Your task to perform on an android device: install app "DoorDash - Dasher" Image 0: 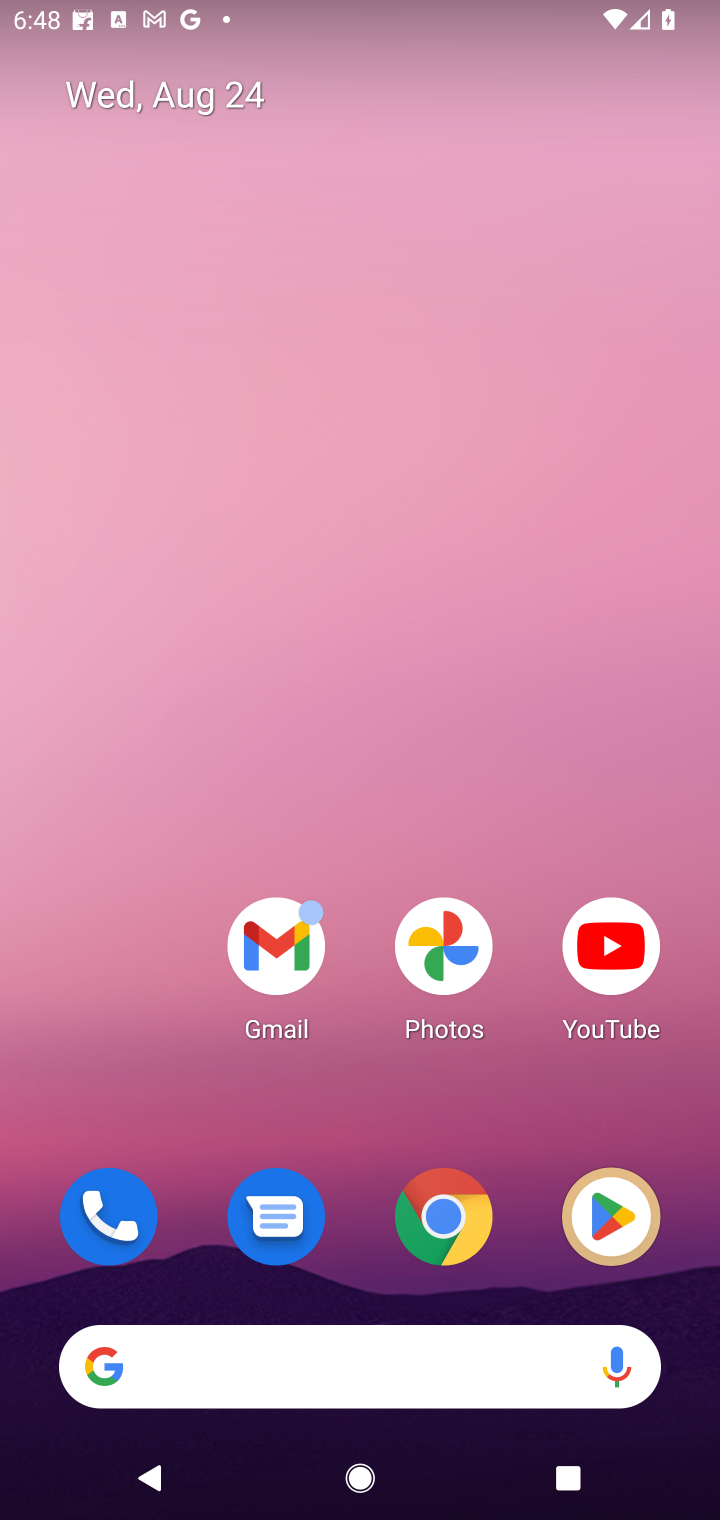
Step 0: click (584, 1202)
Your task to perform on an android device: install app "DoorDash - Dasher" Image 1: 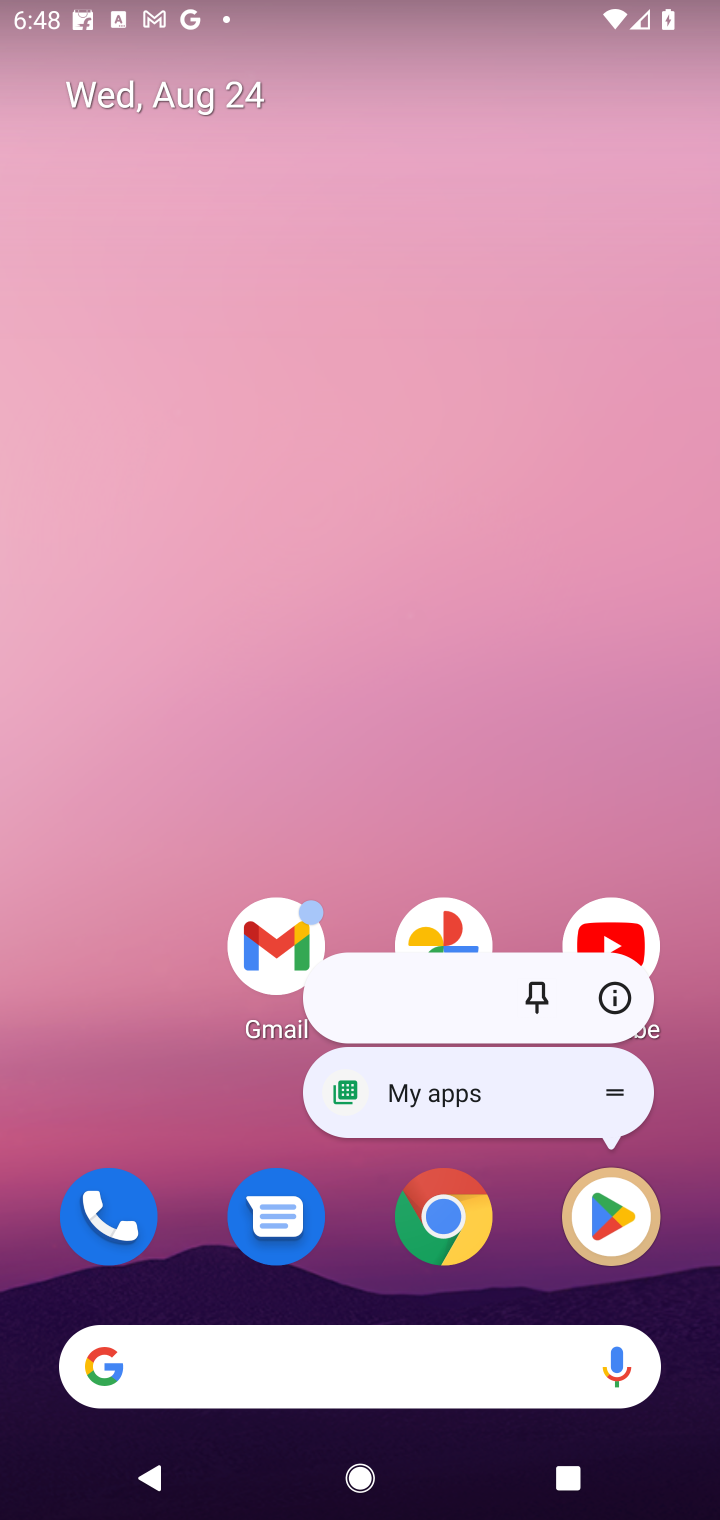
Step 1: click (608, 1185)
Your task to perform on an android device: install app "DoorDash - Dasher" Image 2: 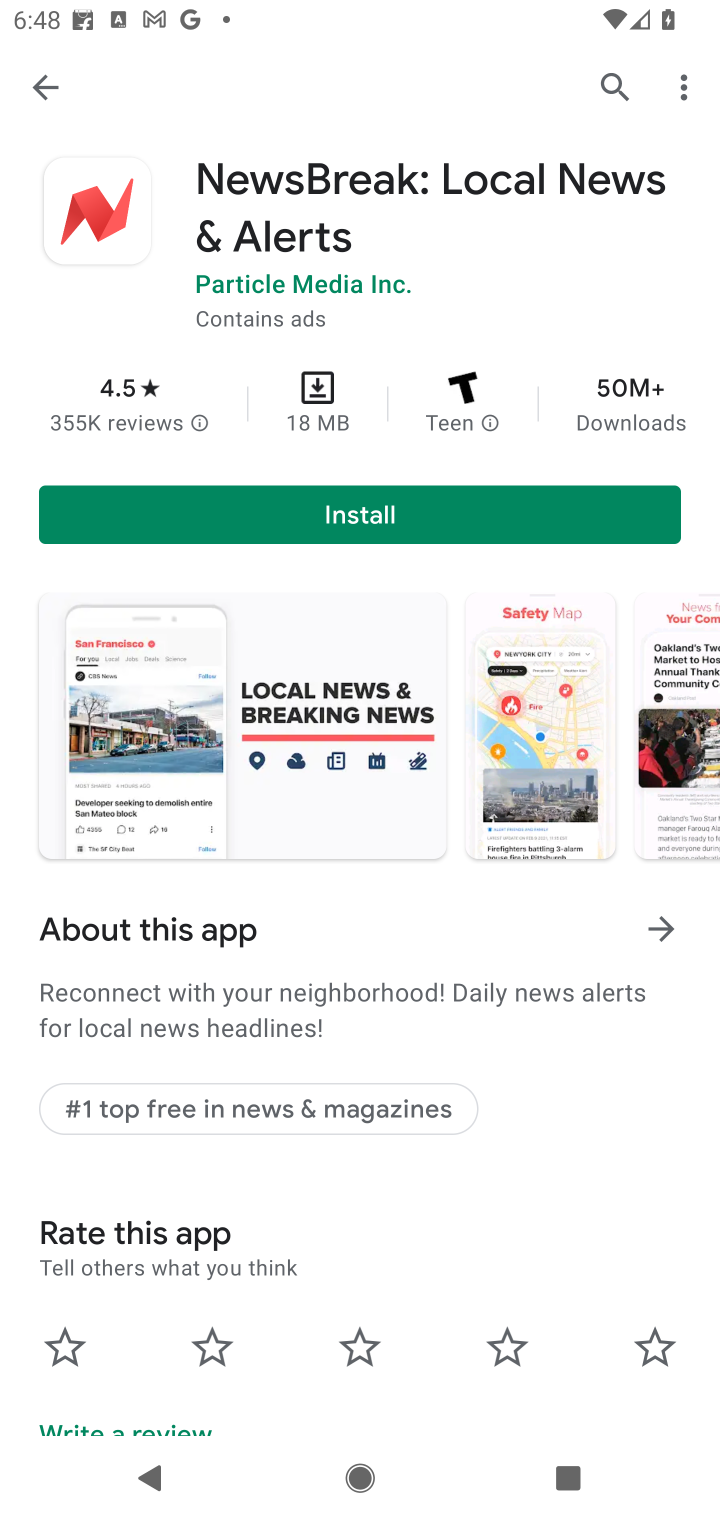
Step 2: click (595, 90)
Your task to perform on an android device: install app "DoorDash - Dasher" Image 3: 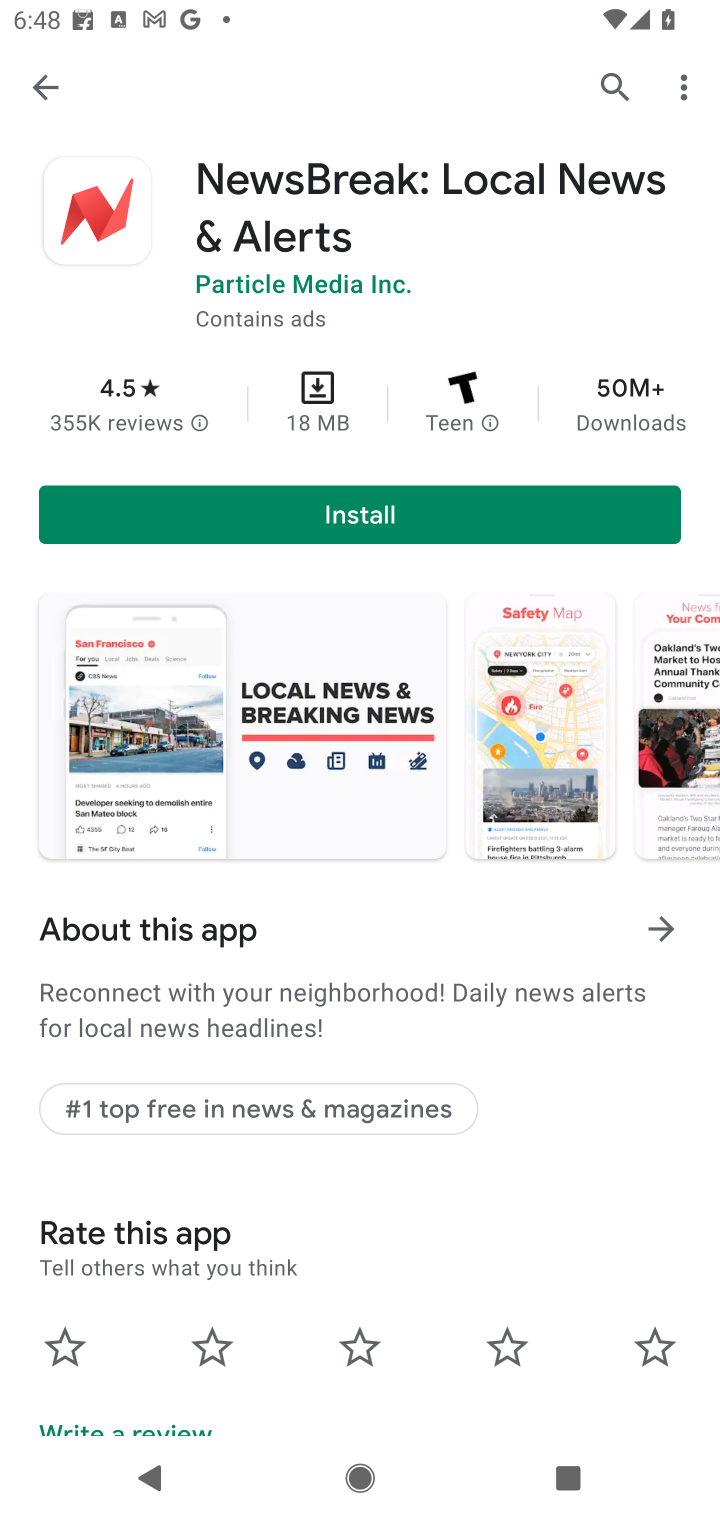
Step 3: click (614, 83)
Your task to perform on an android device: install app "DoorDash - Dasher" Image 4: 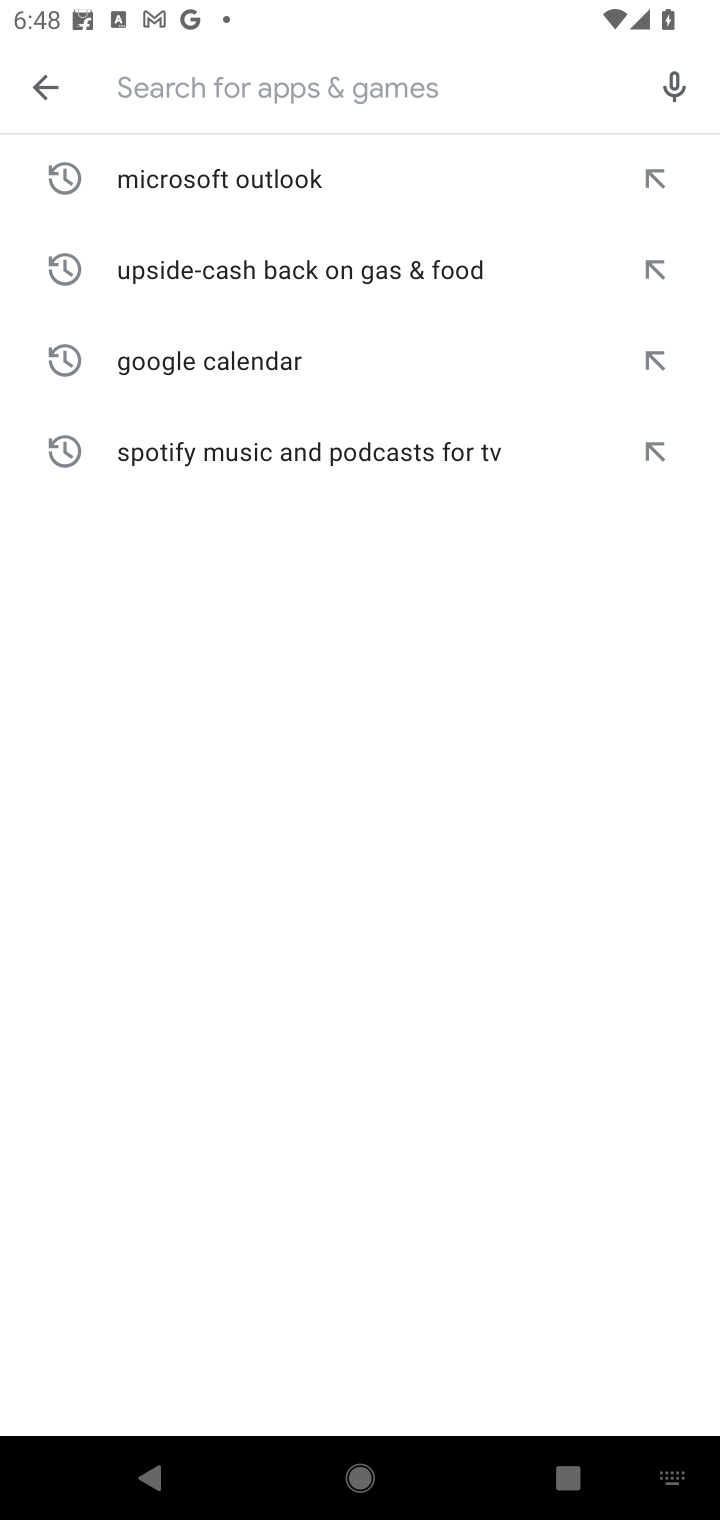
Step 4: type "DoorDash - Dasher"
Your task to perform on an android device: install app "DoorDash - Dasher" Image 5: 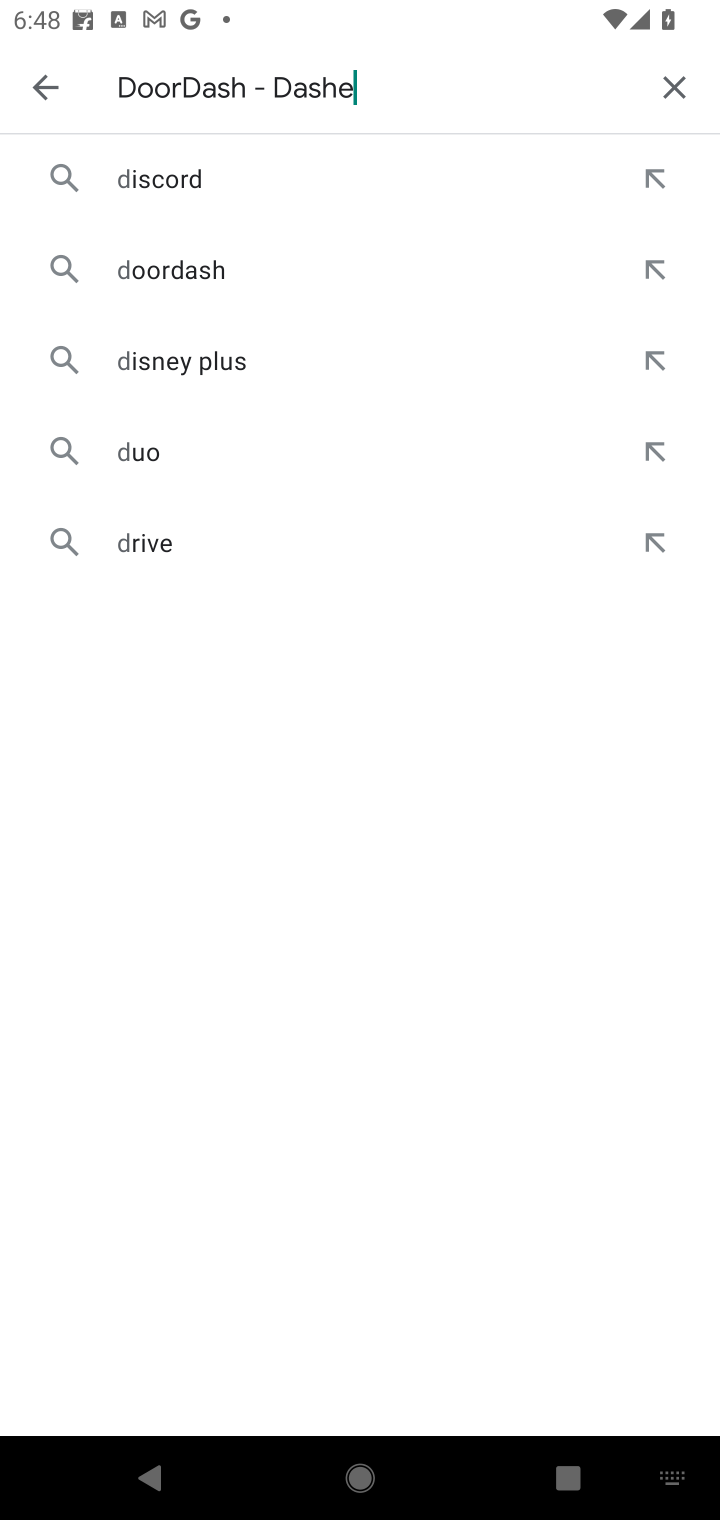
Step 5: type ""
Your task to perform on an android device: install app "DoorDash - Dasher" Image 6: 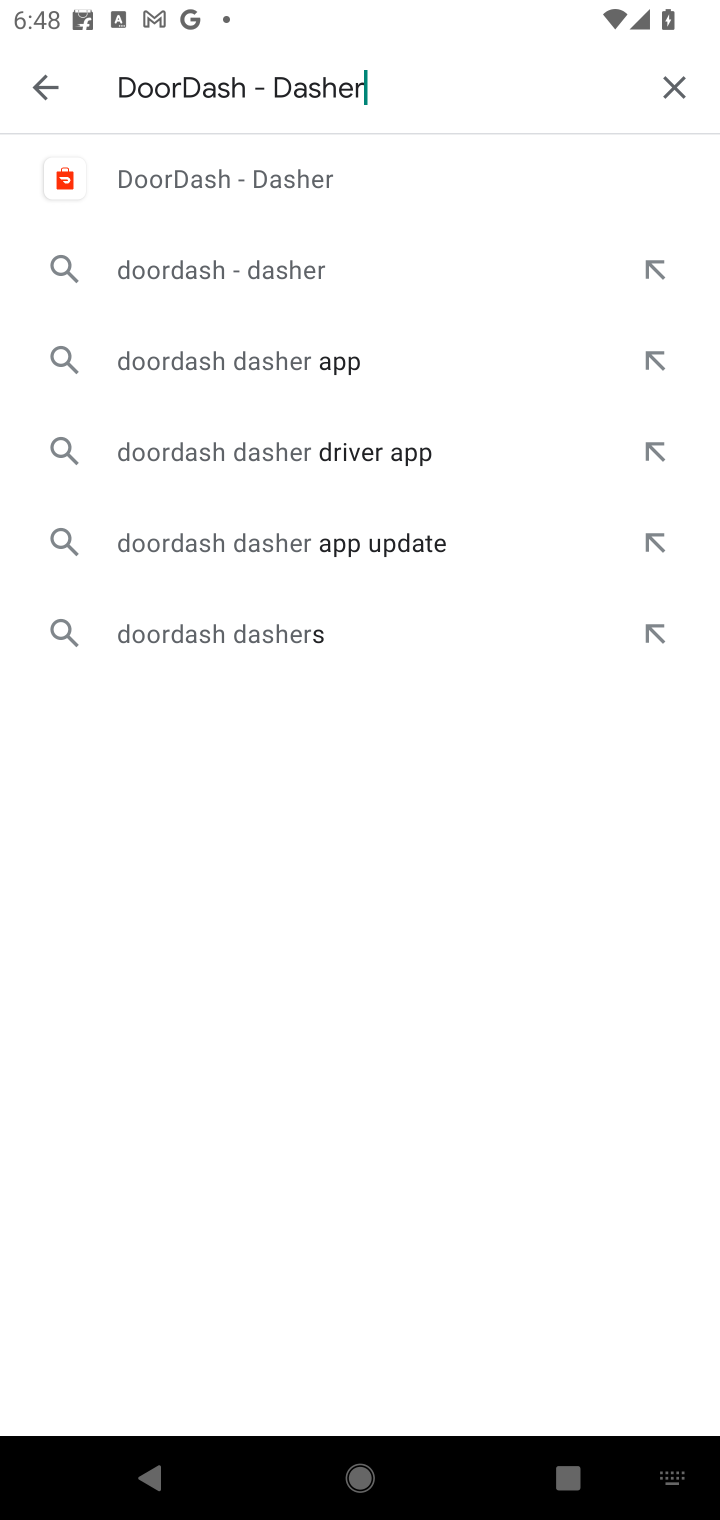
Step 6: click (364, 159)
Your task to perform on an android device: install app "DoorDash - Dasher" Image 7: 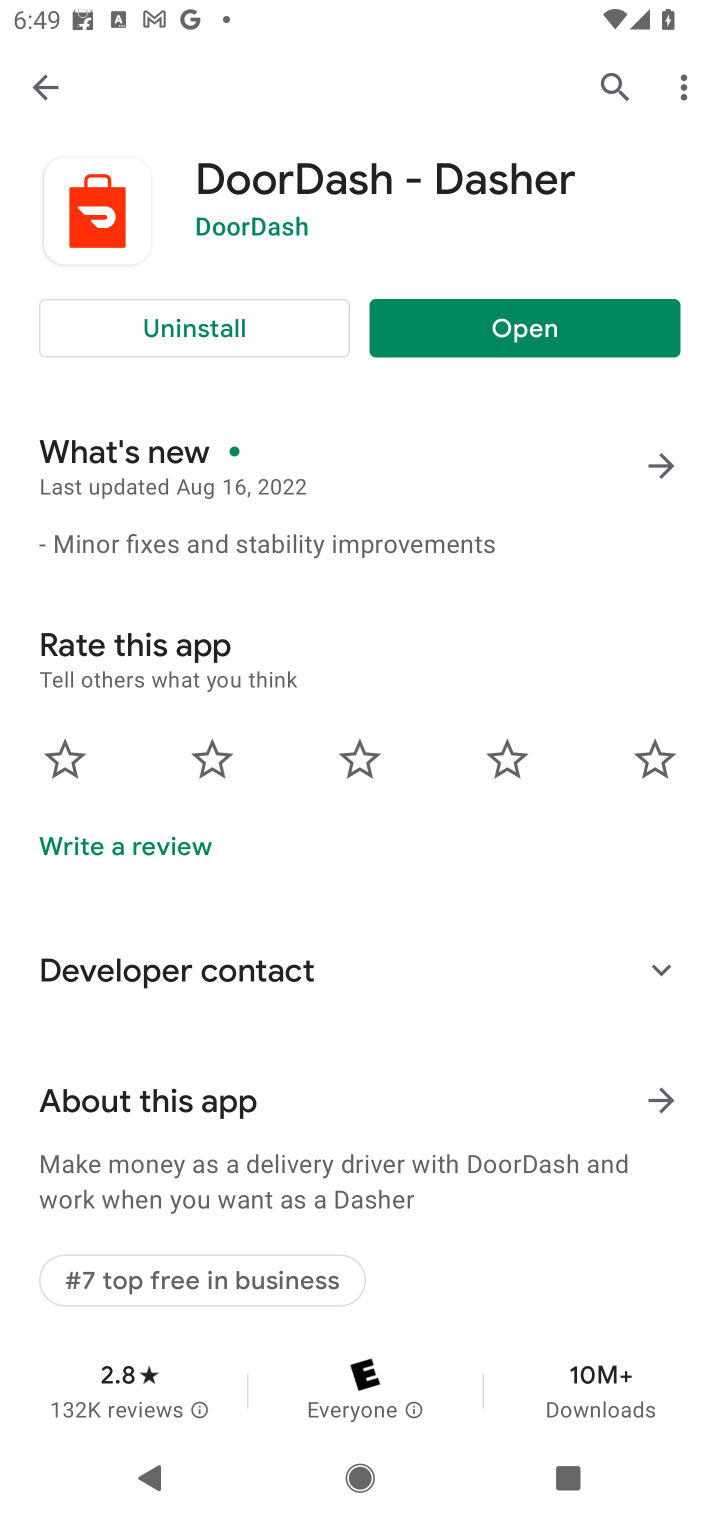
Step 7: task complete